Your task to perform on an android device: check out phone information Image 0: 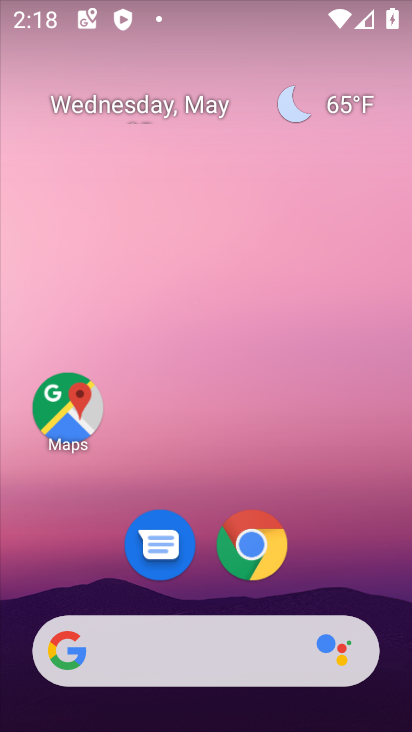
Step 0: drag from (337, 373) to (232, 0)
Your task to perform on an android device: check out phone information Image 1: 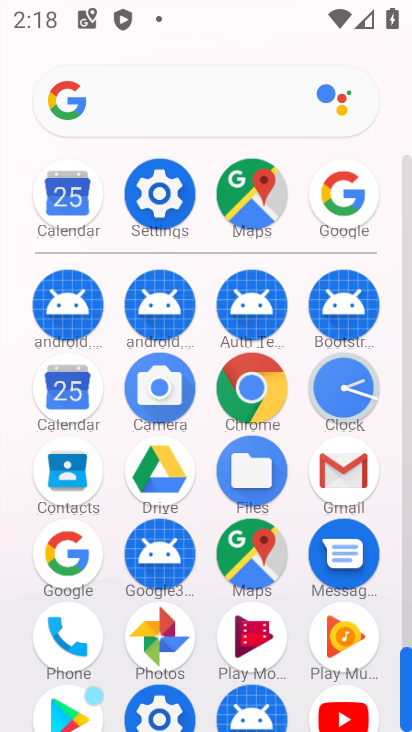
Step 1: click (154, 191)
Your task to perform on an android device: check out phone information Image 2: 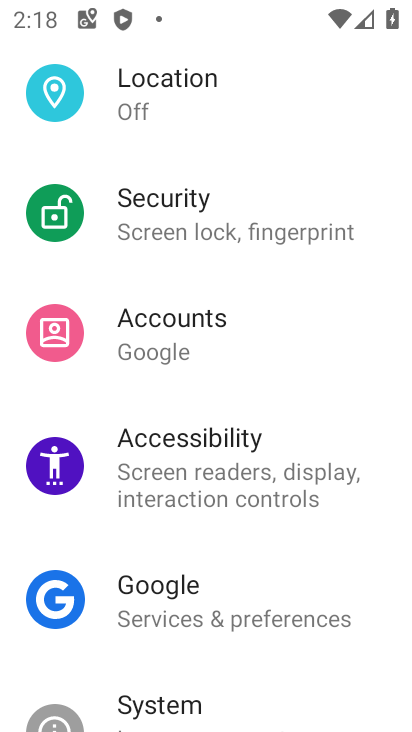
Step 2: drag from (236, 622) to (219, 40)
Your task to perform on an android device: check out phone information Image 3: 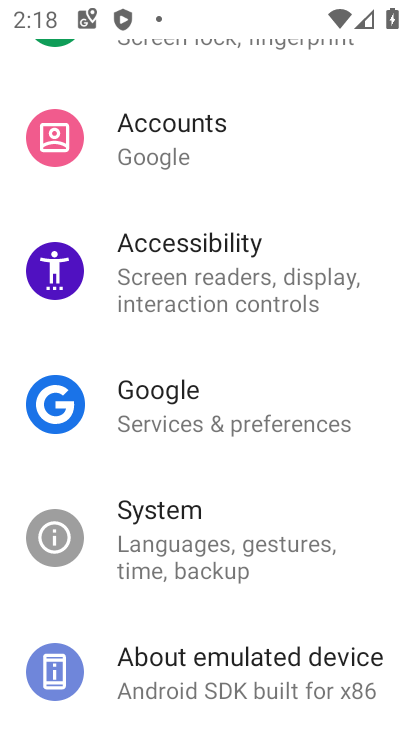
Step 3: drag from (279, 621) to (269, 214)
Your task to perform on an android device: check out phone information Image 4: 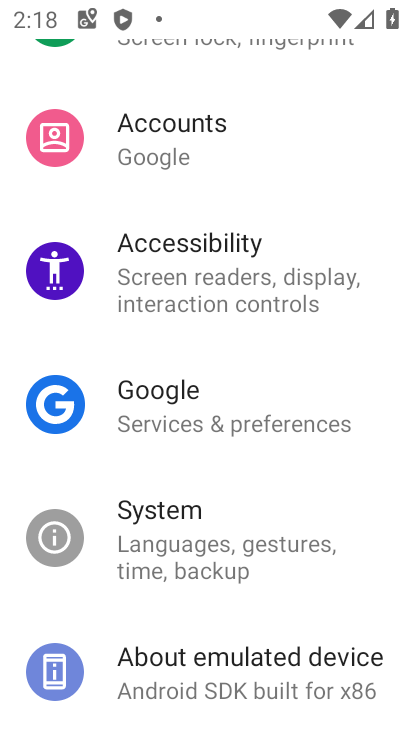
Step 4: click (207, 657)
Your task to perform on an android device: check out phone information Image 5: 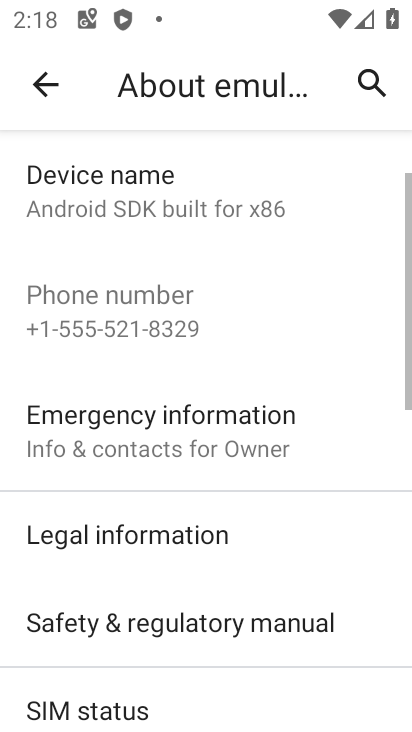
Step 5: task complete